Your task to perform on an android device: Open settings Image 0: 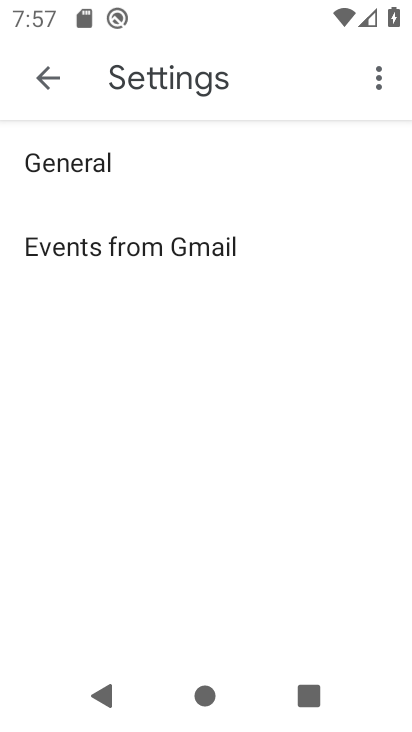
Step 0: press home button
Your task to perform on an android device: Open settings Image 1: 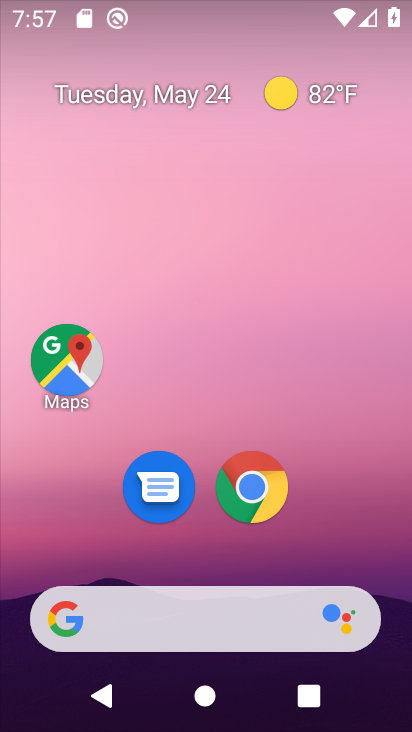
Step 1: drag from (338, 484) to (341, 147)
Your task to perform on an android device: Open settings Image 2: 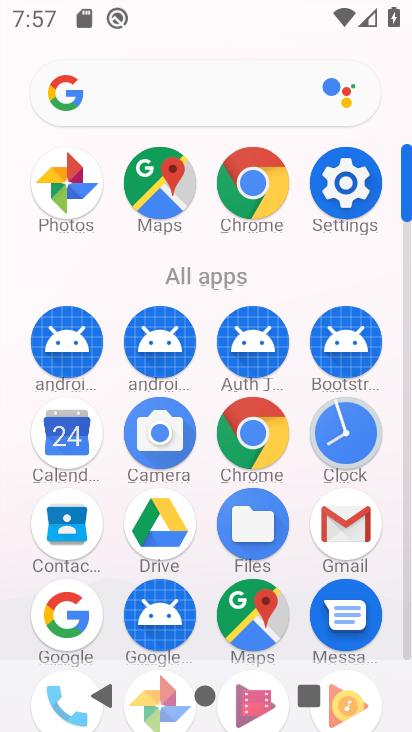
Step 2: click (363, 200)
Your task to perform on an android device: Open settings Image 3: 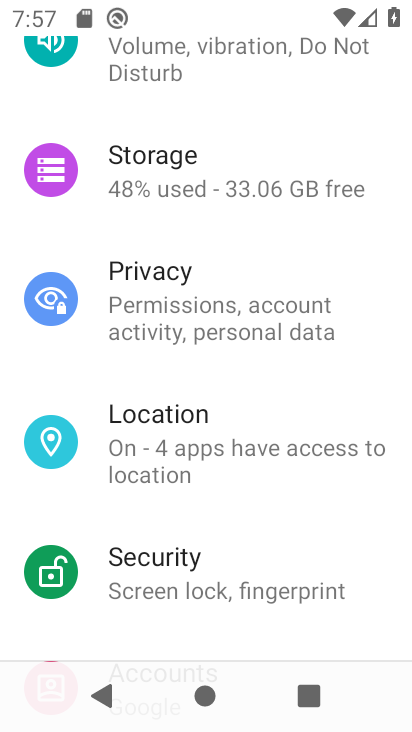
Step 3: task complete